Your task to perform on an android device: Do I have any events tomorrow? Image 0: 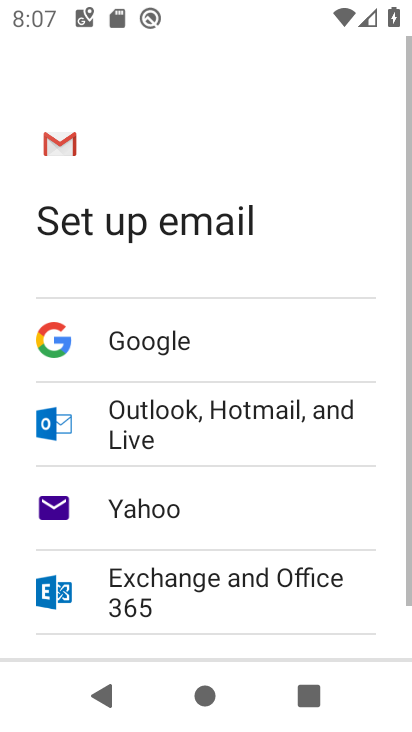
Step 0: press back button
Your task to perform on an android device: Do I have any events tomorrow? Image 1: 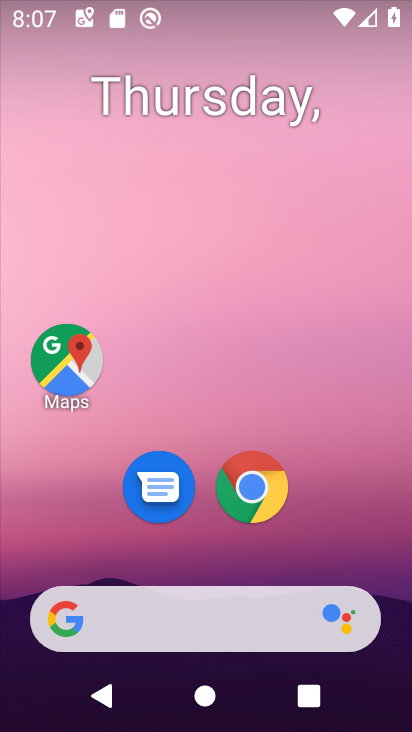
Step 1: drag from (215, 545) to (268, 85)
Your task to perform on an android device: Do I have any events tomorrow? Image 2: 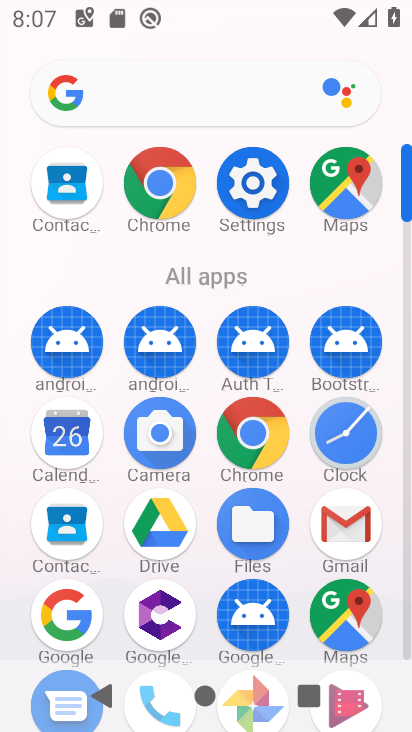
Step 2: click (64, 441)
Your task to perform on an android device: Do I have any events tomorrow? Image 3: 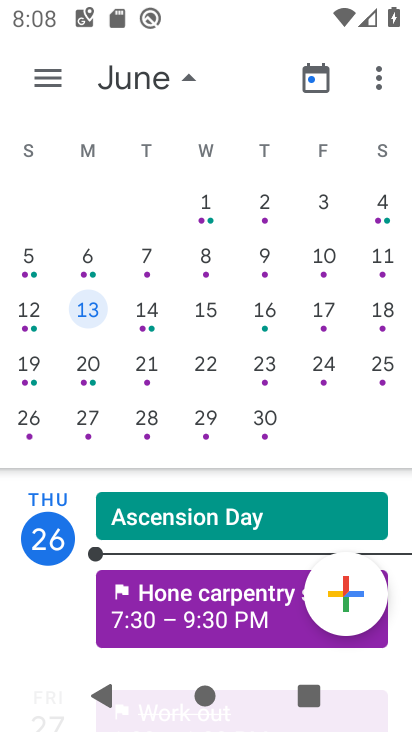
Step 3: drag from (154, 611) to (220, 126)
Your task to perform on an android device: Do I have any events tomorrow? Image 4: 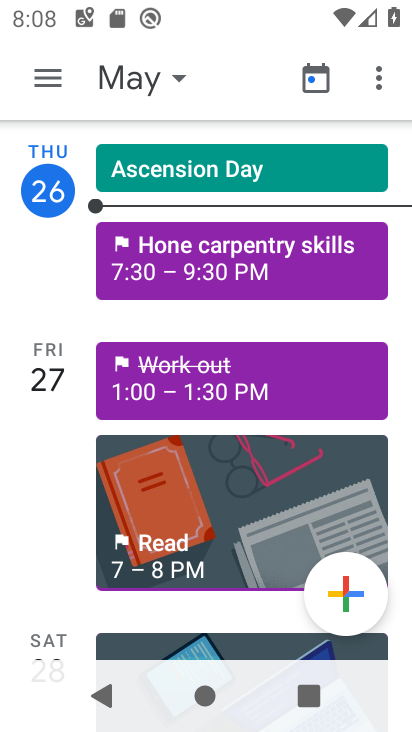
Step 4: drag from (154, 590) to (215, 196)
Your task to perform on an android device: Do I have any events tomorrow? Image 5: 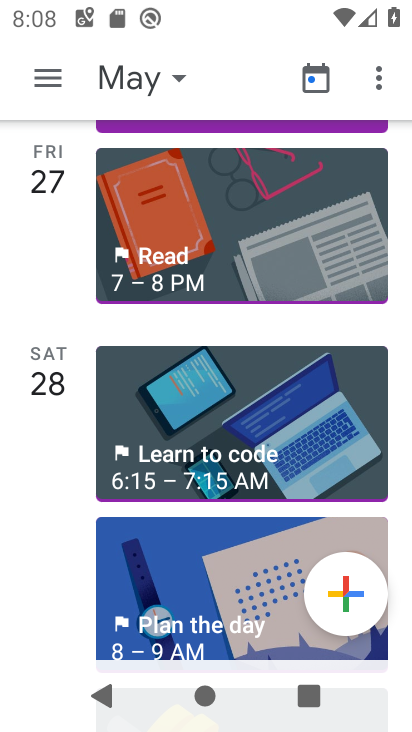
Step 5: drag from (187, 611) to (220, 247)
Your task to perform on an android device: Do I have any events tomorrow? Image 6: 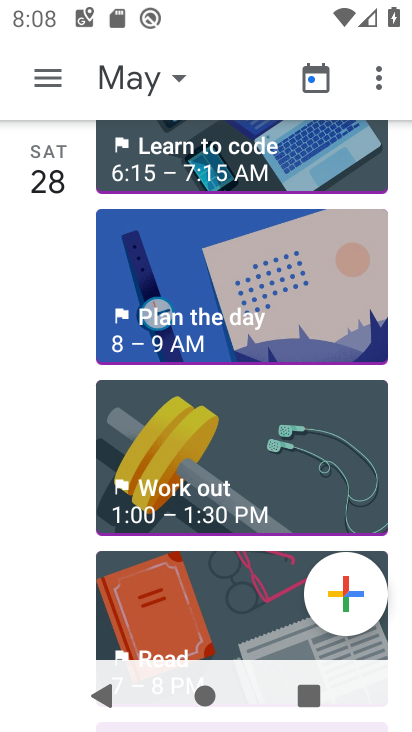
Step 6: click (158, 451)
Your task to perform on an android device: Do I have any events tomorrow? Image 7: 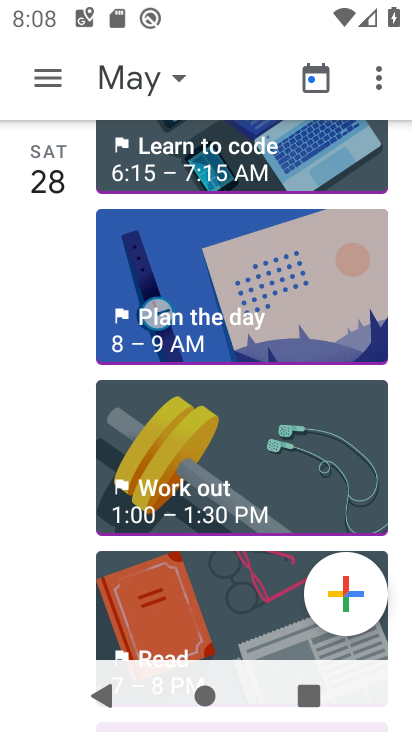
Step 7: click (191, 486)
Your task to perform on an android device: Do I have any events tomorrow? Image 8: 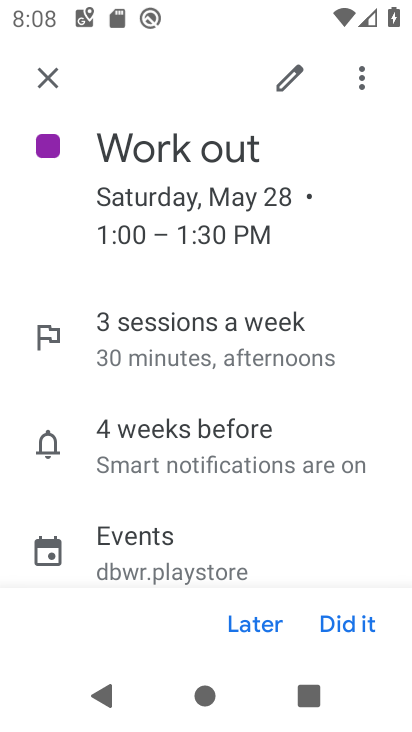
Step 8: task complete